Your task to perform on an android device: turn on bluetooth scan Image 0: 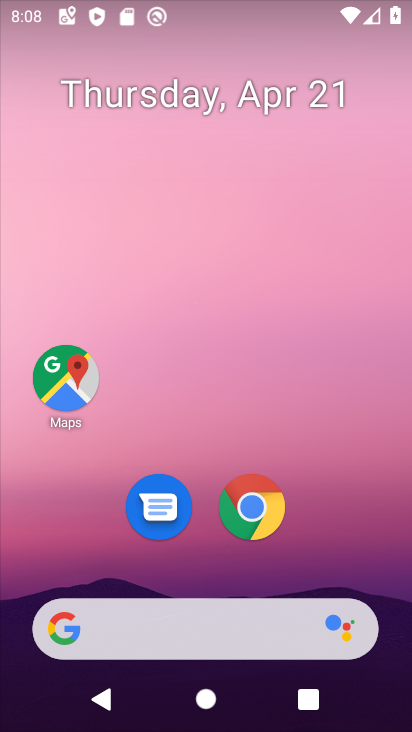
Step 0: drag from (379, 510) to (404, 6)
Your task to perform on an android device: turn on bluetooth scan Image 1: 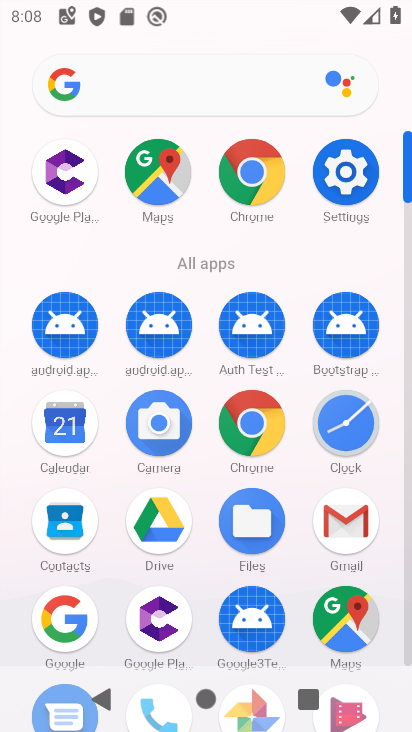
Step 1: click (348, 173)
Your task to perform on an android device: turn on bluetooth scan Image 2: 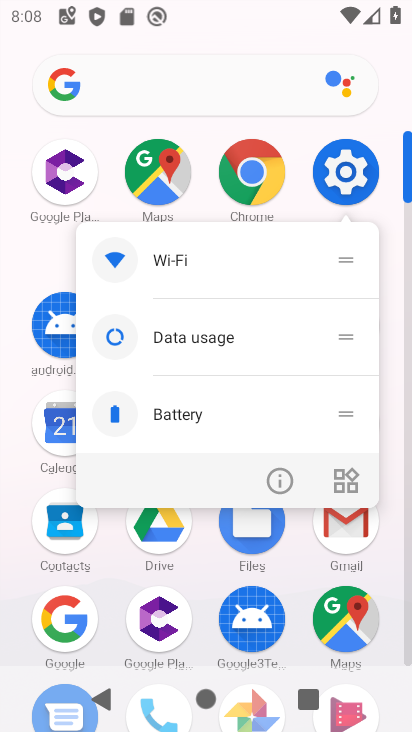
Step 2: click (339, 192)
Your task to perform on an android device: turn on bluetooth scan Image 3: 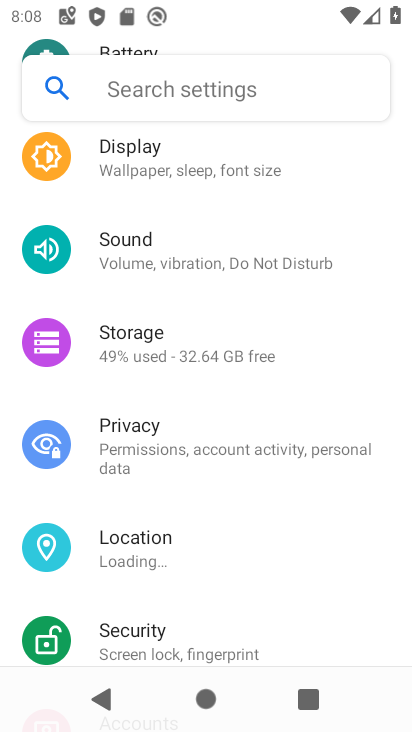
Step 3: click (196, 557)
Your task to perform on an android device: turn on bluetooth scan Image 4: 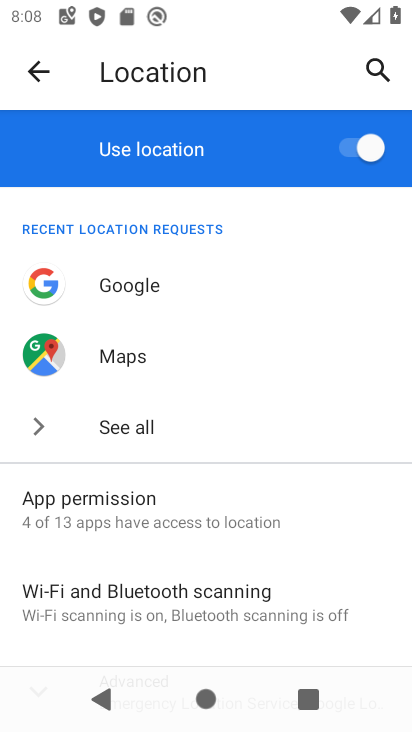
Step 4: click (203, 602)
Your task to perform on an android device: turn on bluetooth scan Image 5: 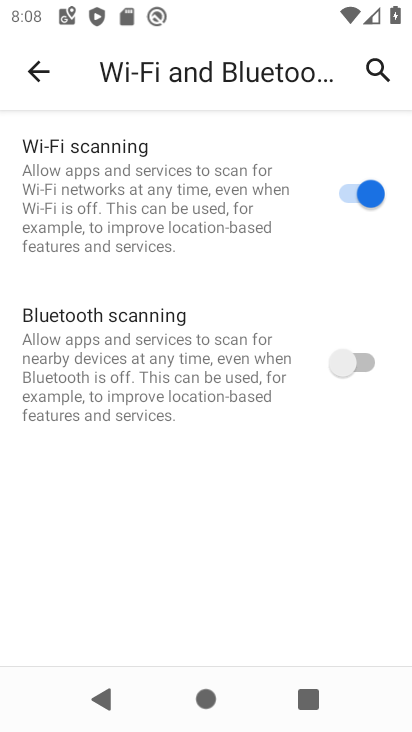
Step 5: click (366, 357)
Your task to perform on an android device: turn on bluetooth scan Image 6: 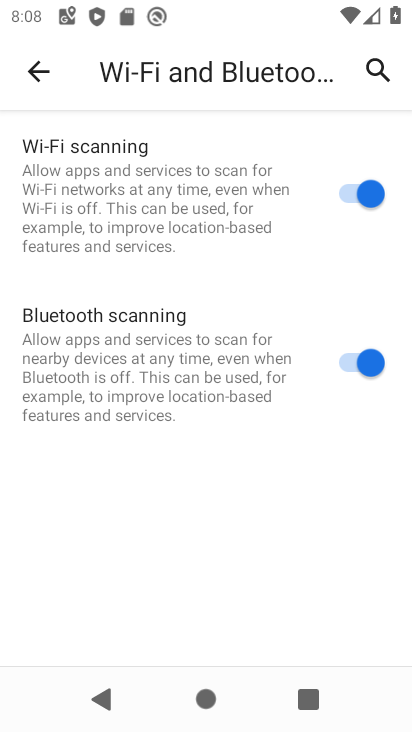
Step 6: task complete